Your task to perform on an android device: Go to display settings Image 0: 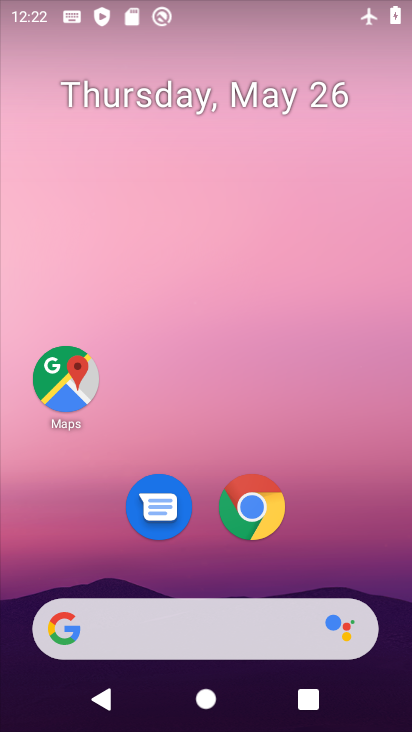
Step 0: drag from (223, 555) to (278, 148)
Your task to perform on an android device: Go to display settings Image 1: 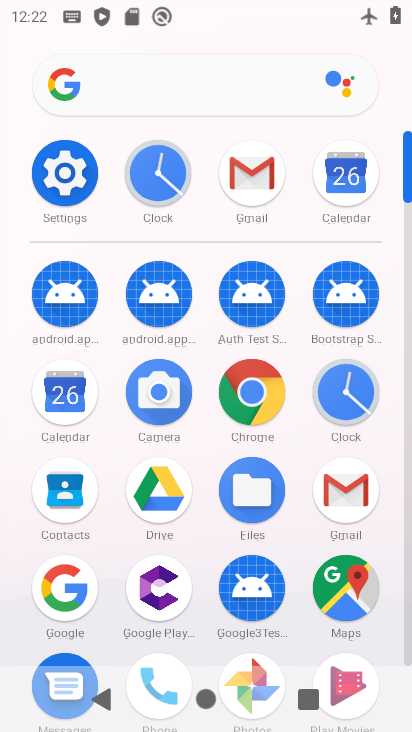
Step 1: click (80, 178)
Your task to perform on an android device: Go to display settings Image 2: 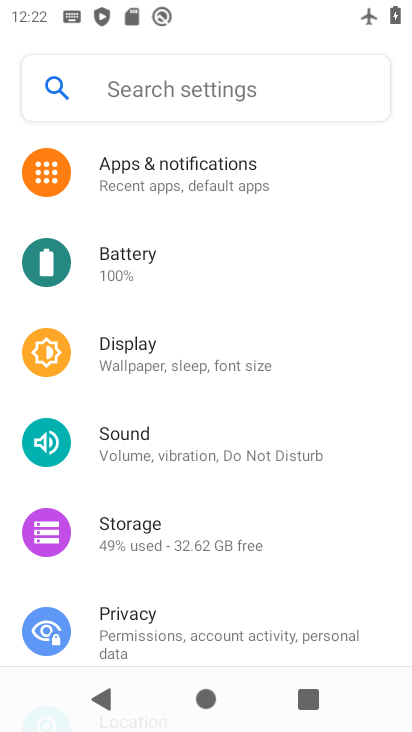
Step 2: click (155, 354)
Your task to perform on an android device: Go to display settings Image 3: 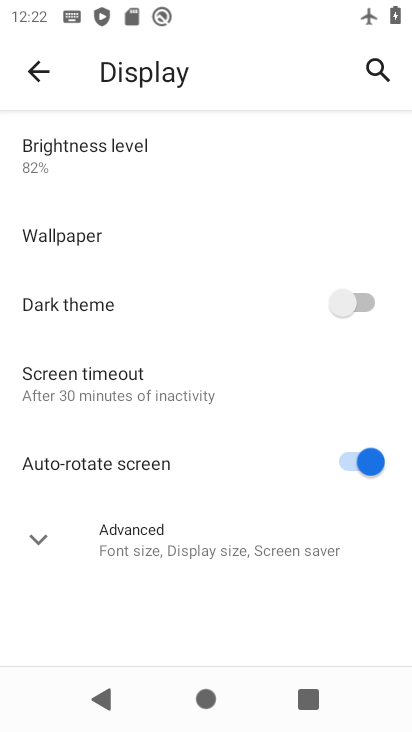
Step 3: task complete